Your task to perform on an android device: check storage Image 0: 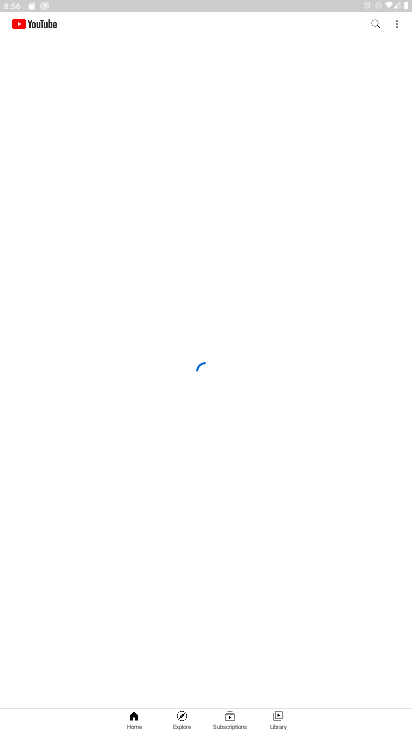
Step 0: drag from (376, 655) to (136, 0)
Your task to perform on an android device: check storage Image 1: 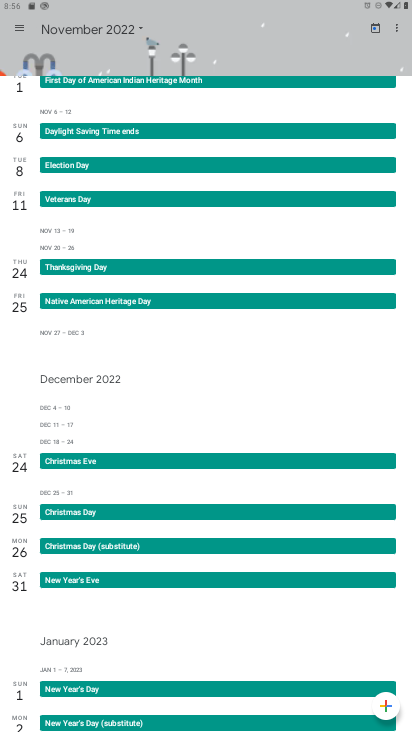
Step 1: press home button
Your task to perform on an android device: check storage Image 2: 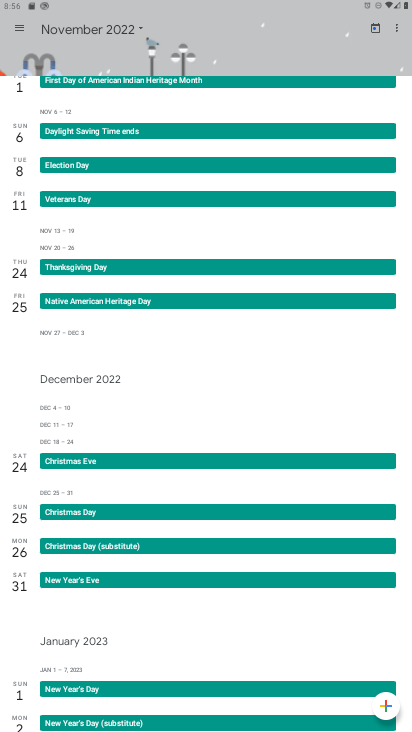
Step 2: drag from (382, 696) to (194, 3)
Your task to perform on an android device: check storage Image 3: 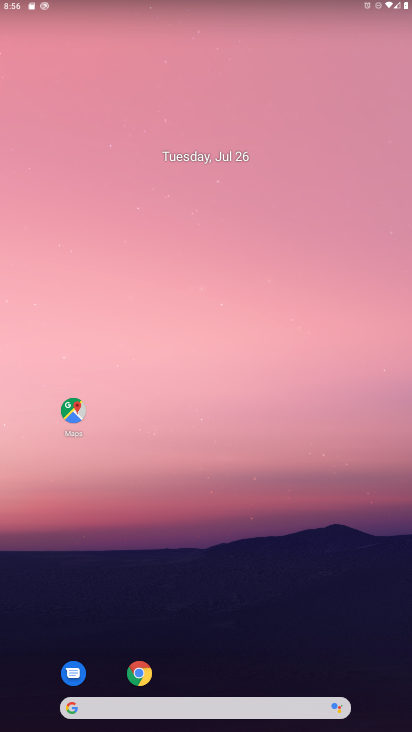
Step 3: drag from (377, 653) to (181, 12)
Your task to perform on an android device: check storage Image 4: 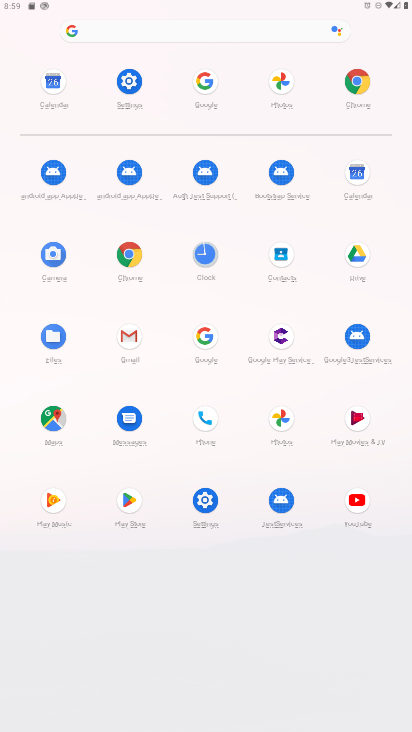
Step 4: click (199, 511)
Your task to perform on an android device: check storage Image 5: 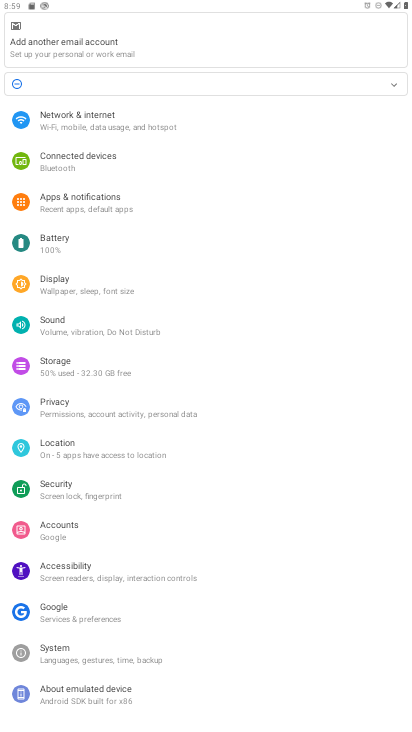
Step 5: click (73, 370)
Your task to perform on an android device: check storage Image 6: 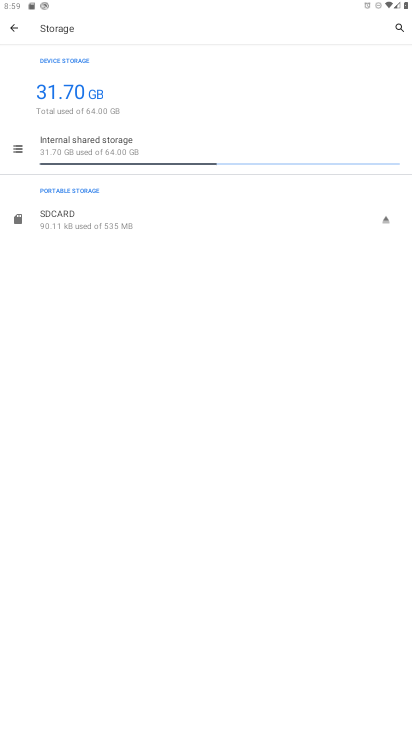
Step 6: click (99, 152)
Your task to perform on an android device: check storage Image 7: 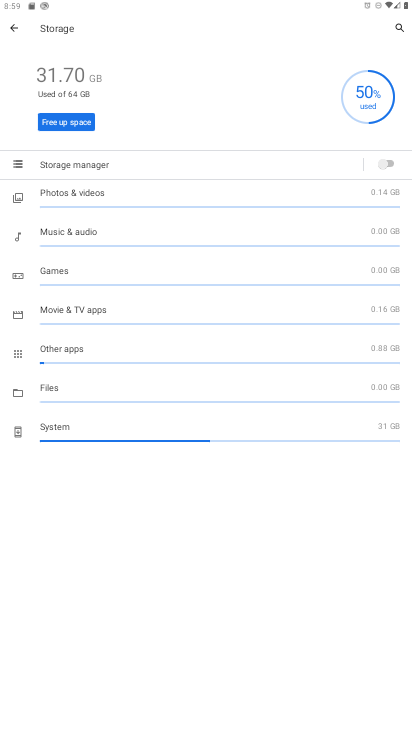
Step 7: task complete